Your task to perform on an android device: delete browsing data in the chrome app Image 0: 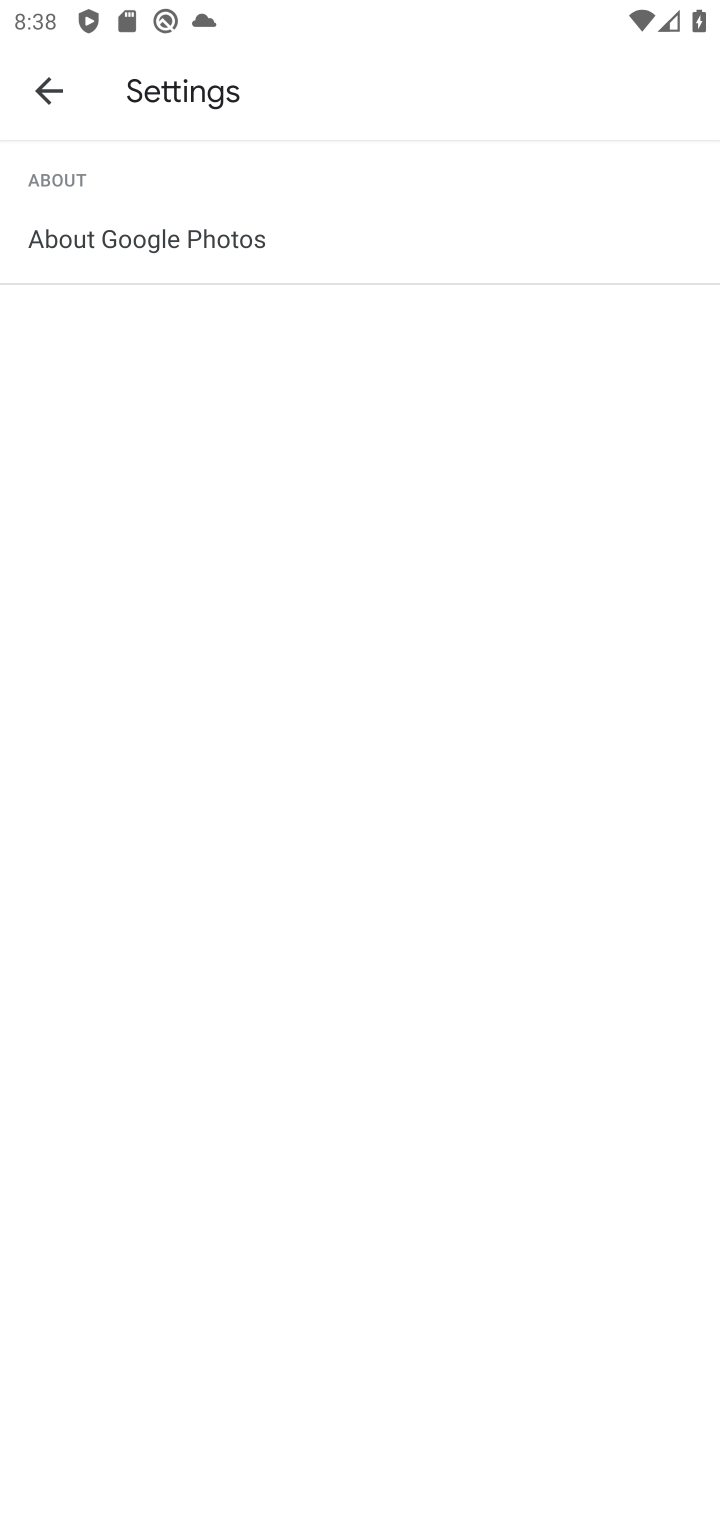
Step 0: press home button
Your task to perform on an android device: delete browsing data in the chrome app Image 1: 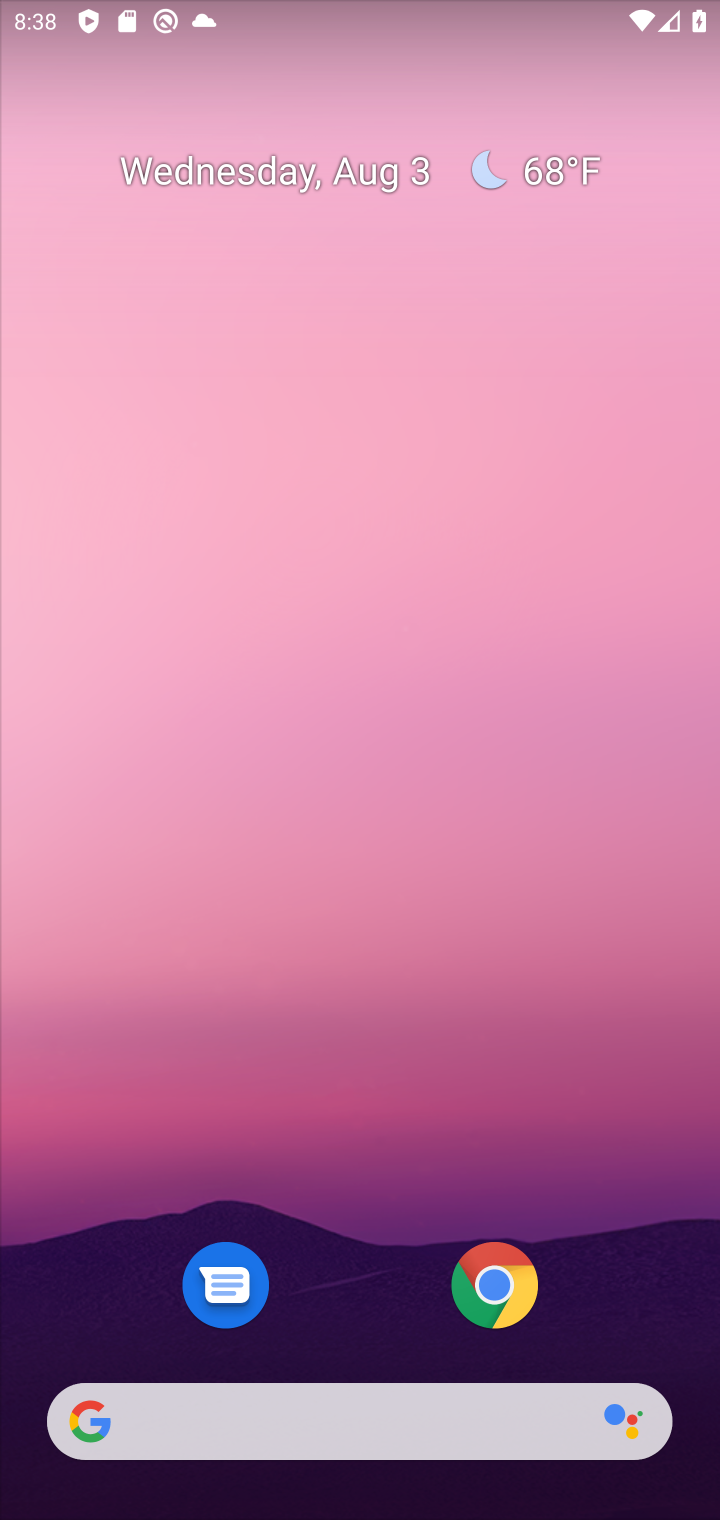
Step 1: click (522, 1276)
Your task to perform on an android device: delete browsing data in the chrome app Image 2: 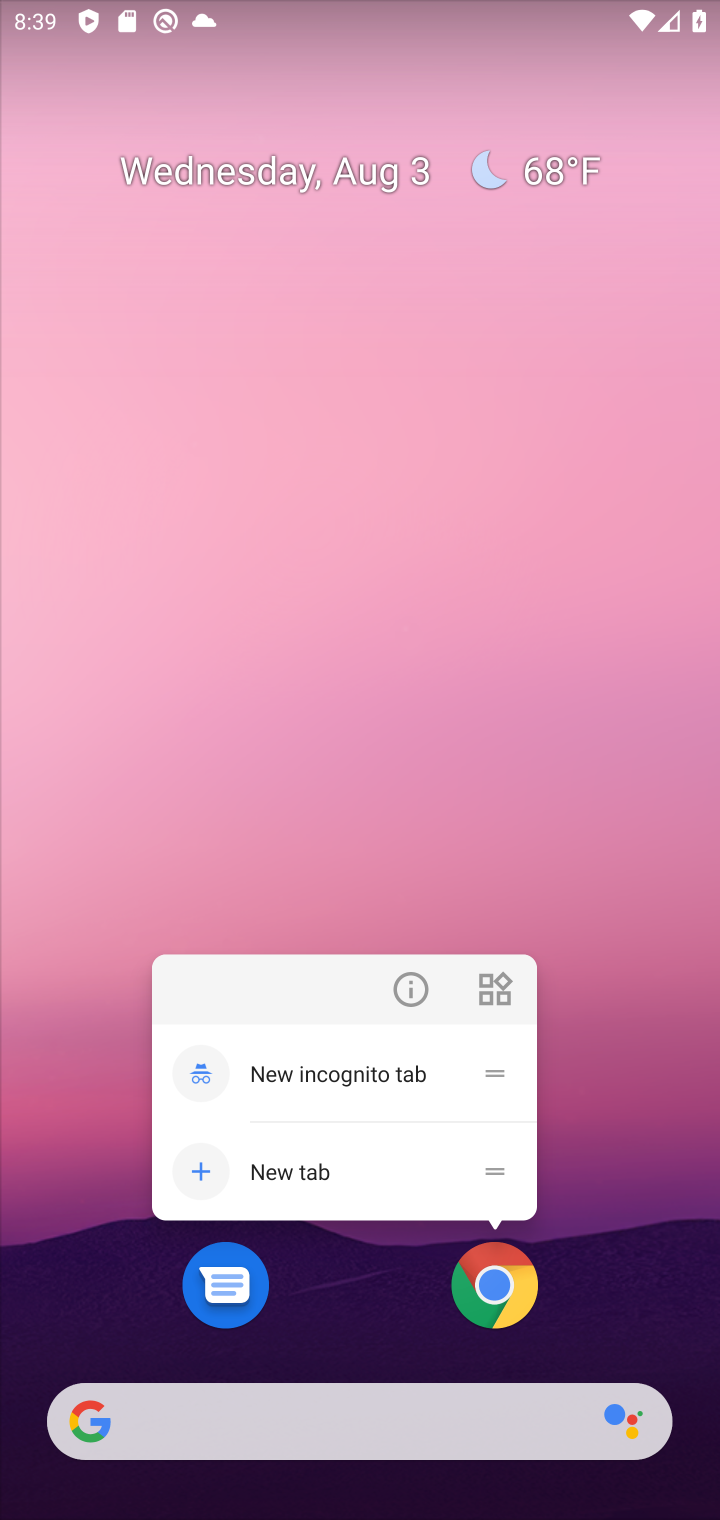
Step 2: click (630, 740)
Your task to perform on an android device: delete browsing data in the chrome app Image 3: 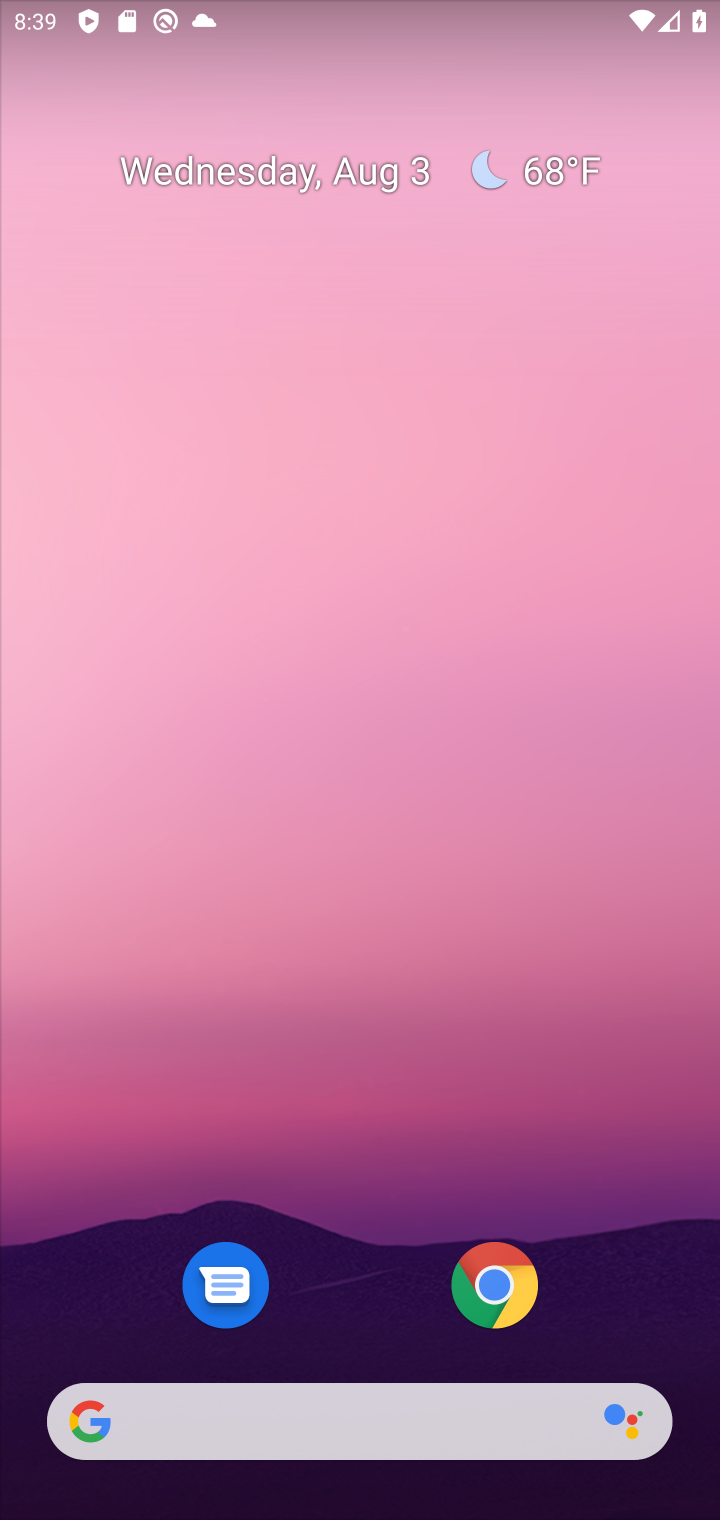
Step 3: click (497, 1321)
Your task to perform on an android device: delete browsing data in the chrome app Image 4: 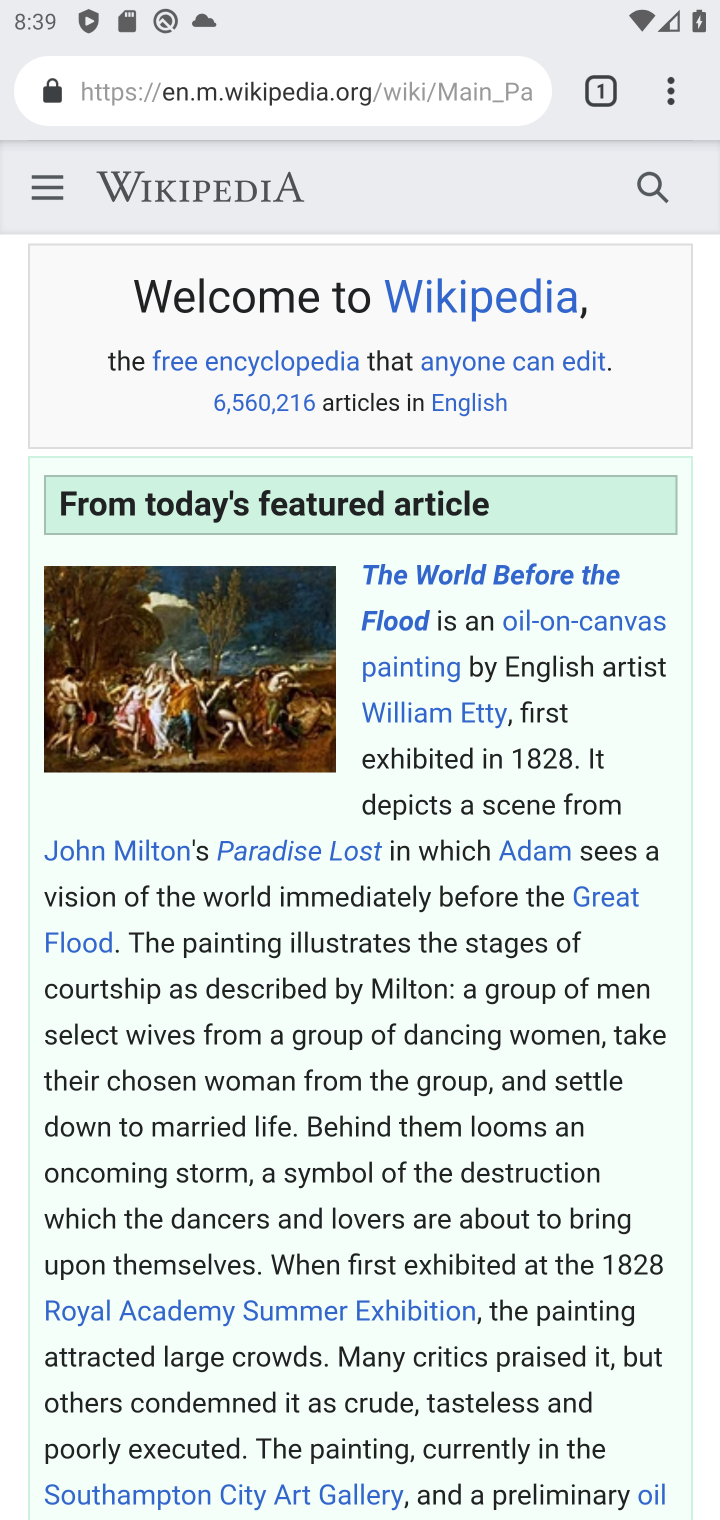
Step 4: click (684, 102)
Your task to perform on an android device: delete browsing data in the chrome app Image 5: 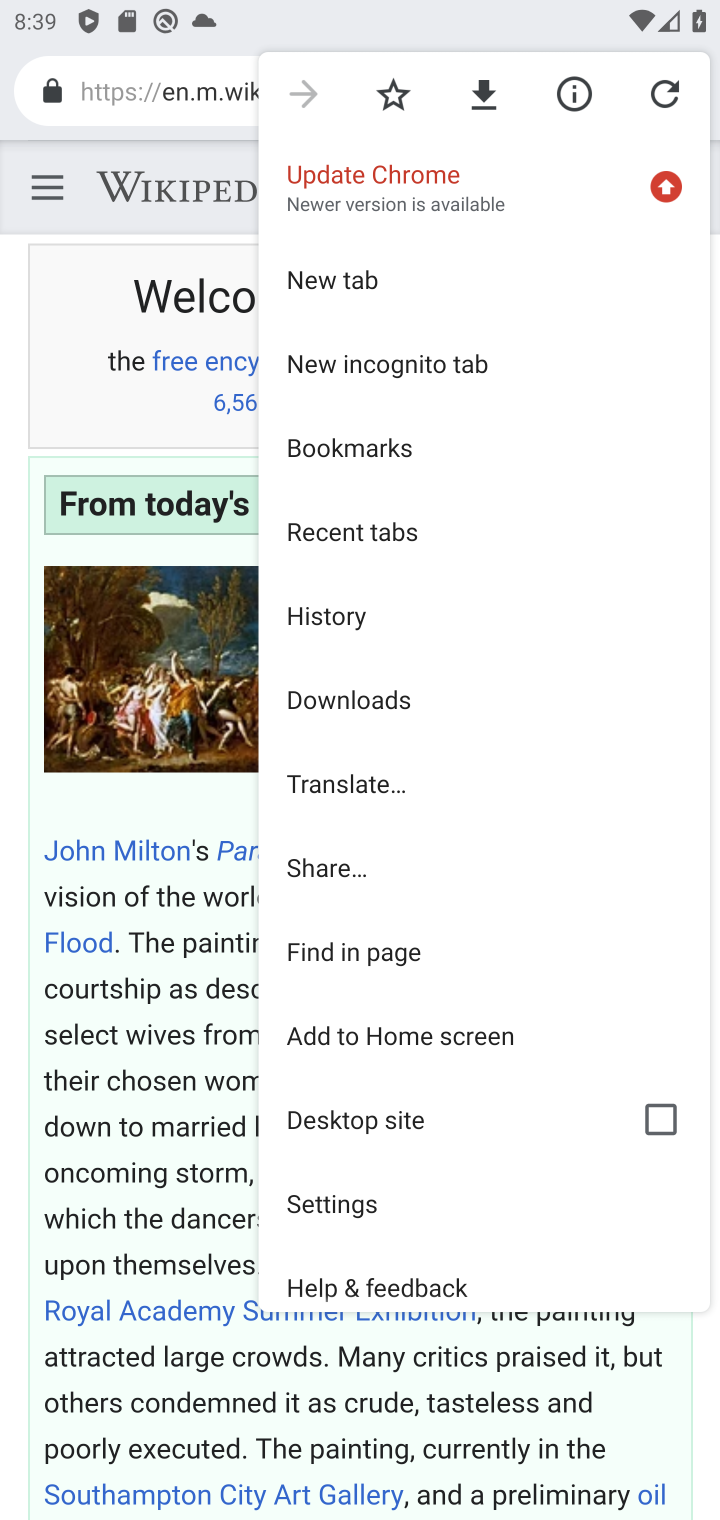
Step 5: click (290, 611)
Your task to perform on an android device: delete browsing data in the chrome app Image 6: 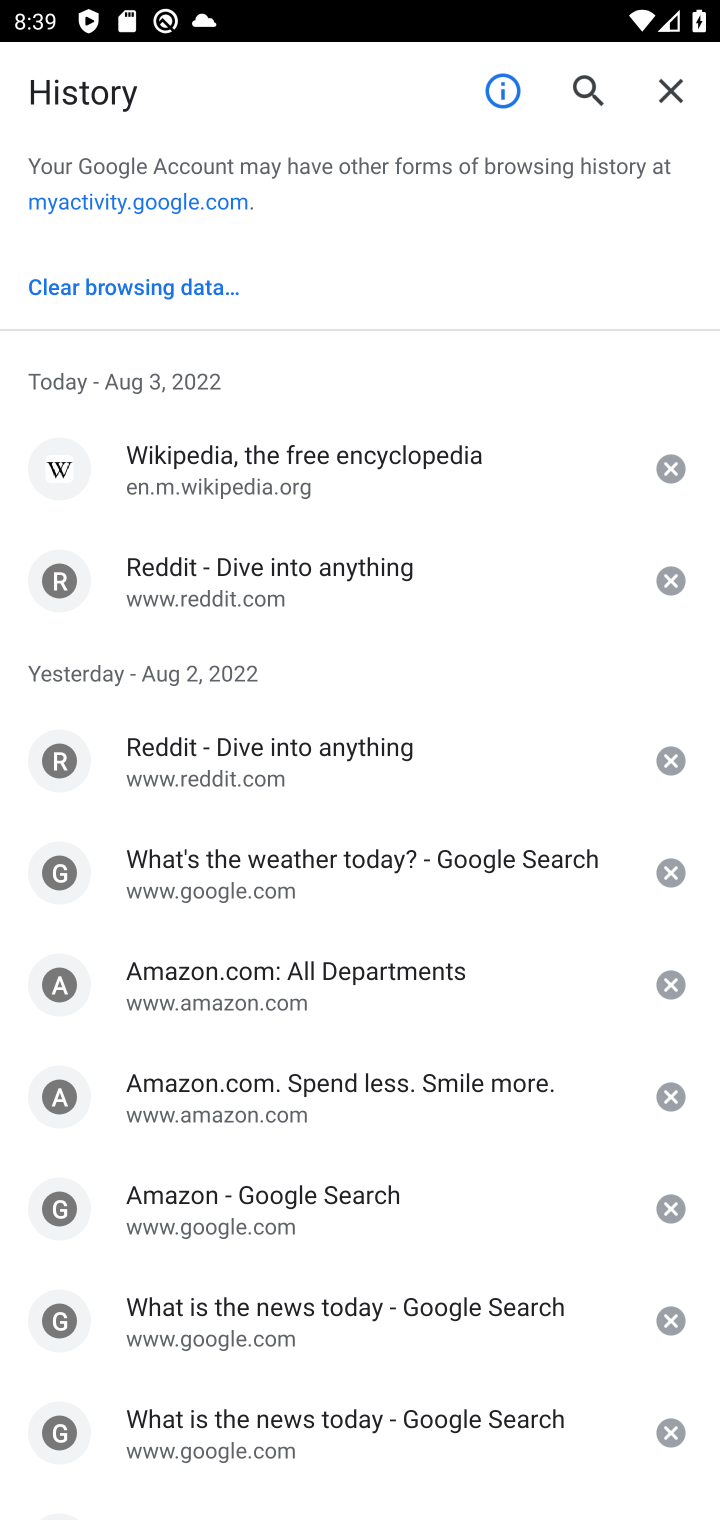
Step 6: click (207, 293)
Your task to perform on an android device: delete browsing data in the chrome app Image 7: 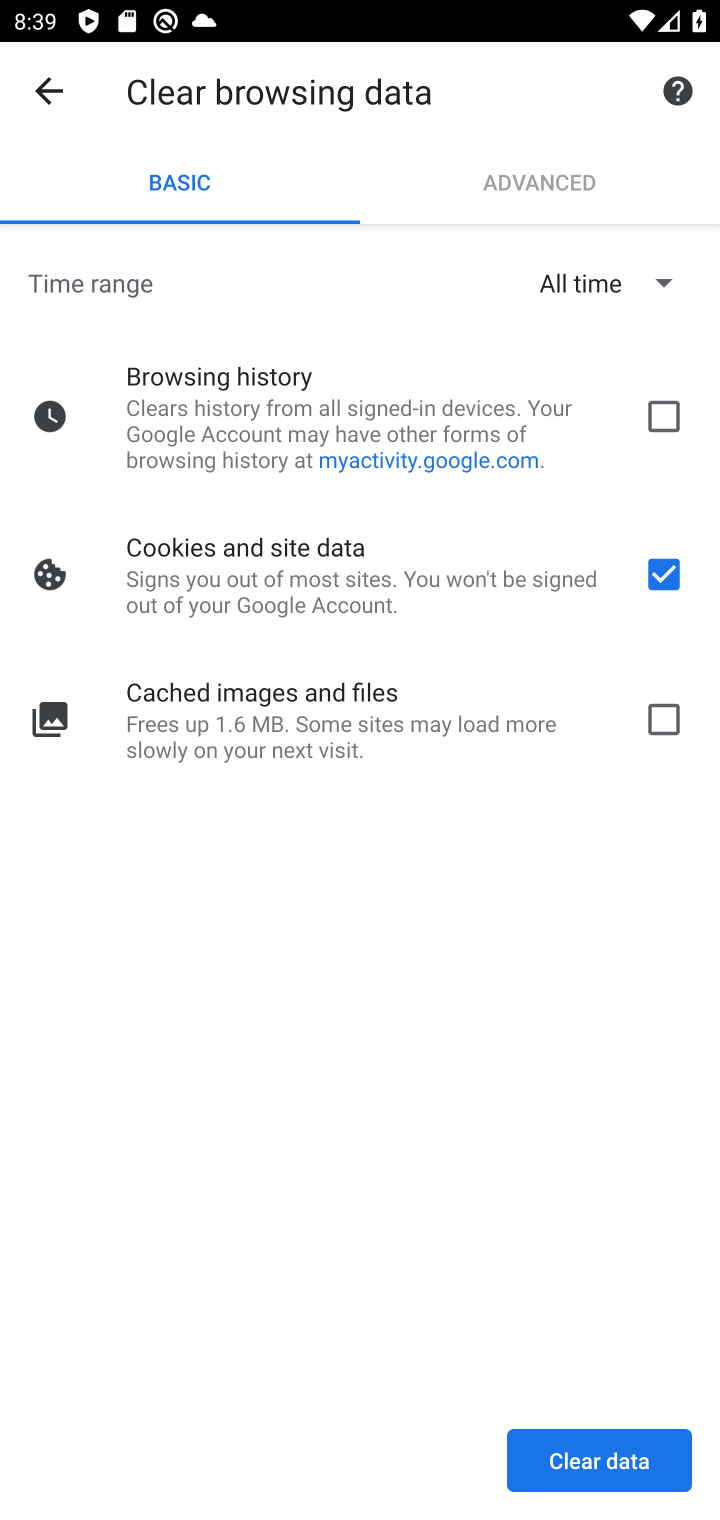
Step 7: click (663, 418)
Your task to perform on an android device: delete browsing data in the chrome app Image 8: 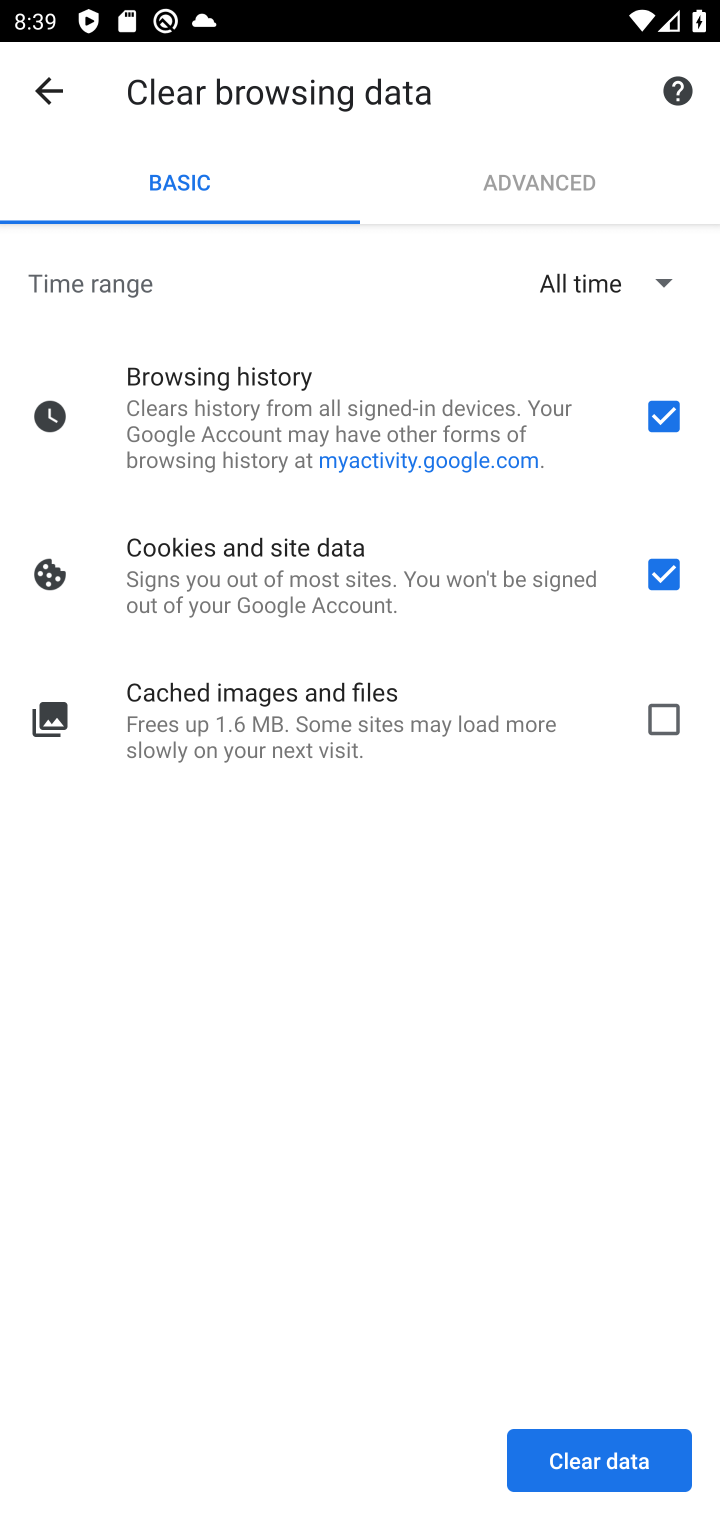
Step 8: click (674, 732)
Your task to perform on an android device: delete browsing data in the chrome app Image 9: 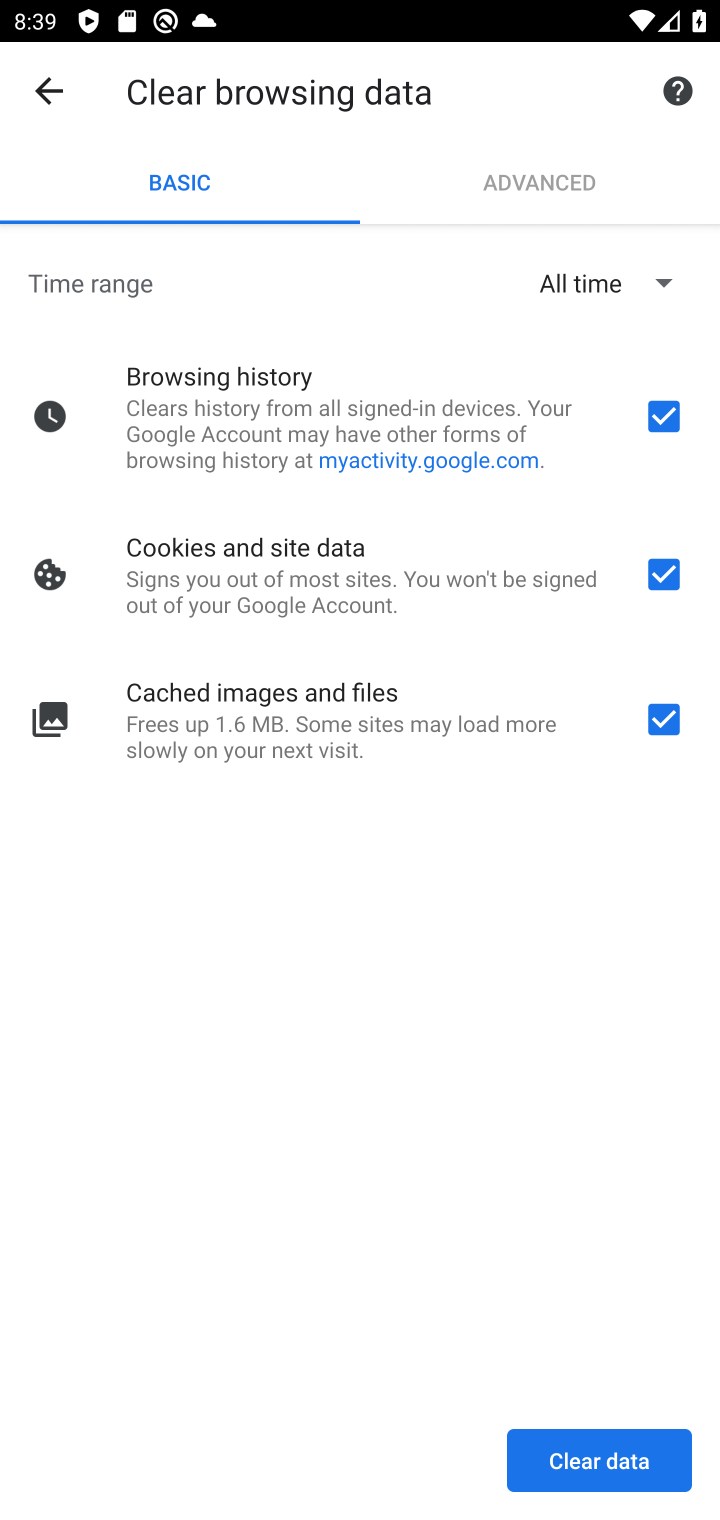
Step 9: click (600, 1464)
Your task to perform on an android device: delete browsing data in the chrome app Image 10: 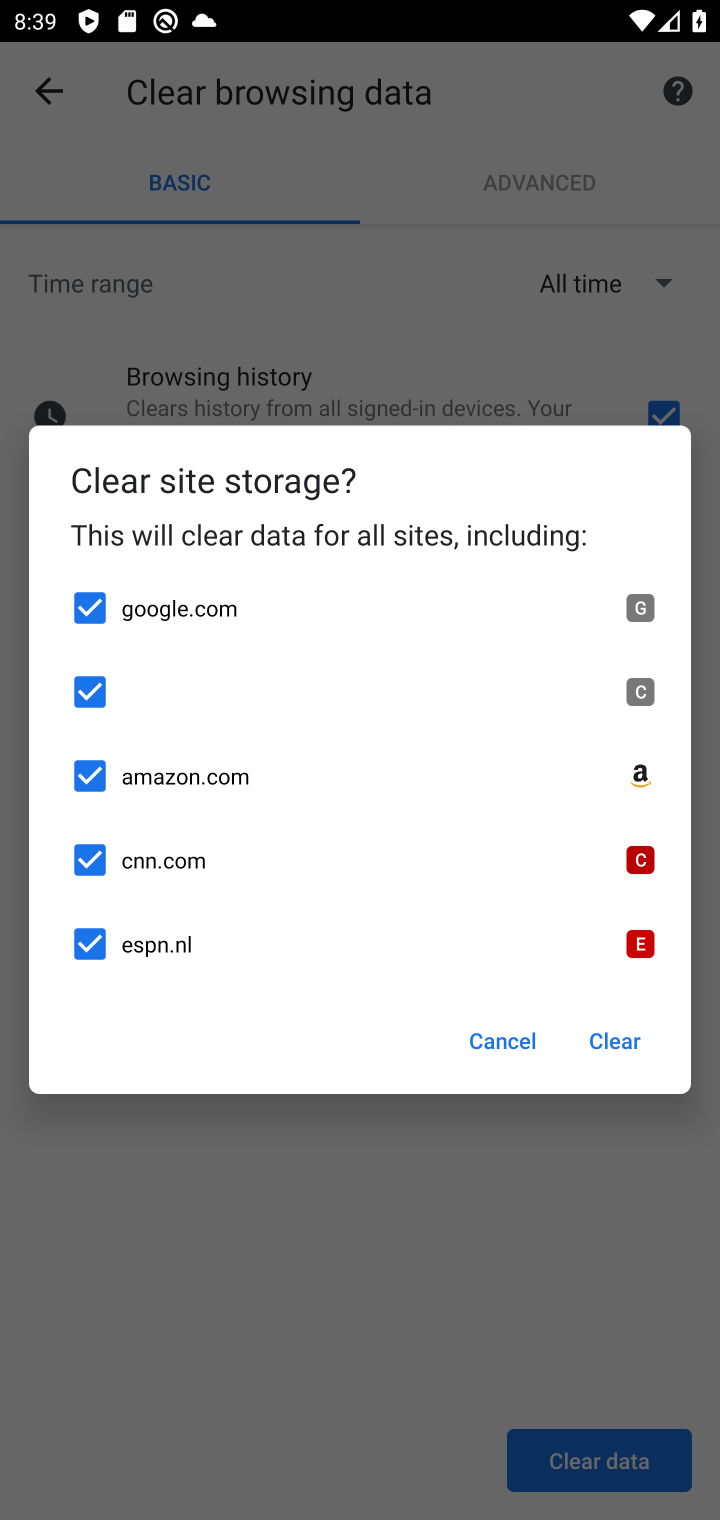
Step 10: click (616, 1036)
Your task to perform on an android device: delete browsing data in the chrome app Image 11: 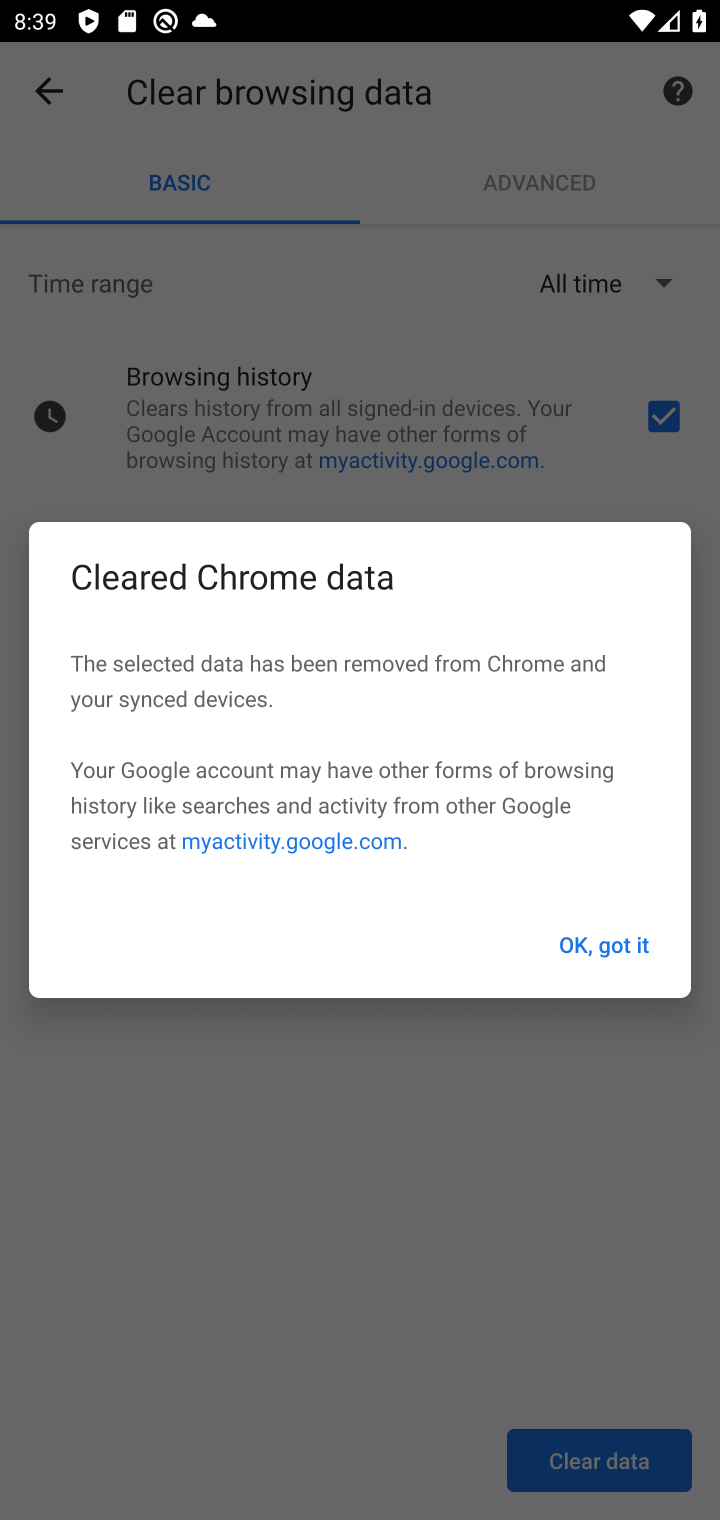
Step 11: click (605, 943)
Your task to perform on an android device: delete browsing data in the chrome app Image 12: 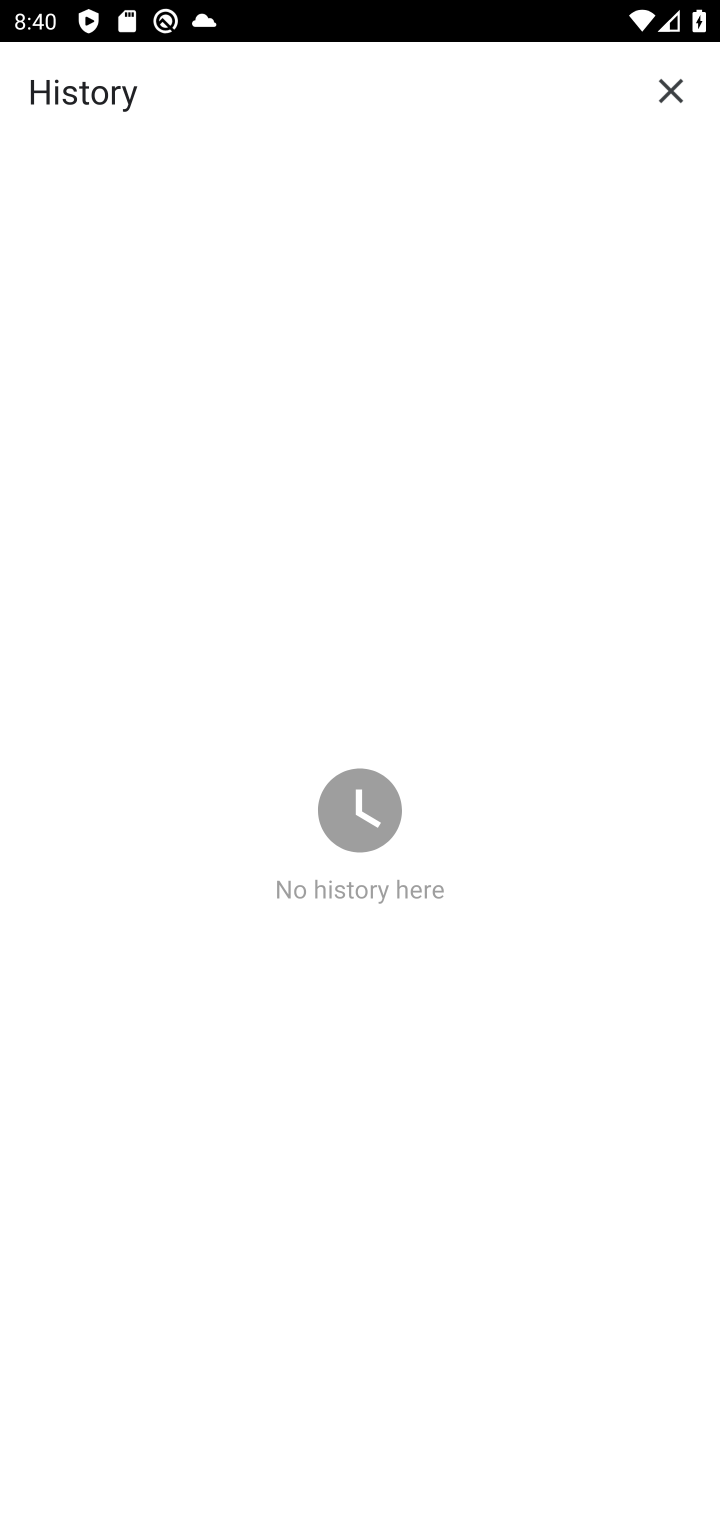
Step 12: task complete